Your task to perform on an android device: Go to calendar. Show me events next week Image 0: 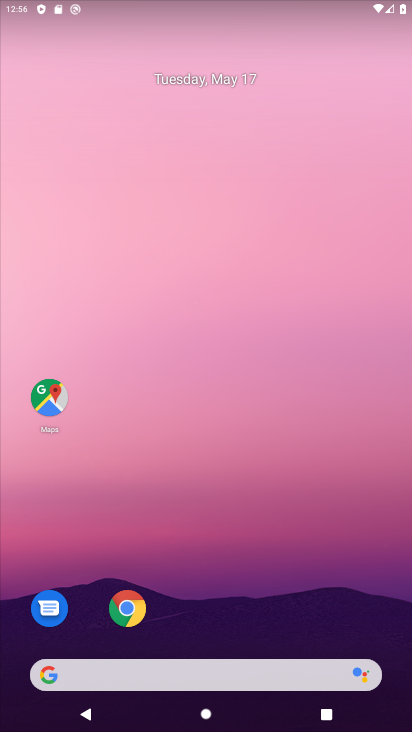
Step 0: click (183, 81)
Your task to perform on an android device: Go to calendar. Show me events next week Image 1: 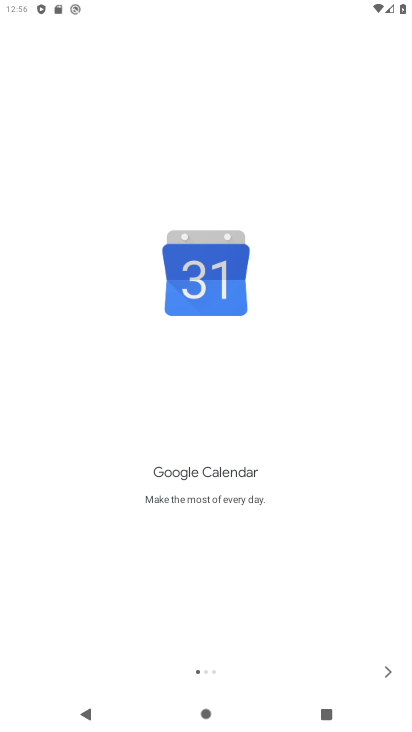
Step 1: click (384, 668)
Your task to perform on an android device: Go to calendar. Show me events next week Image 2: 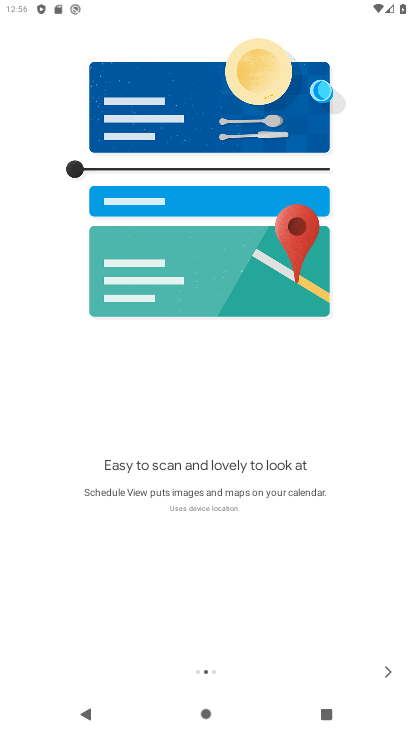
Step 2: click (384, 668)
Your task to perform on an android device: Go to calendar. Show me events next week Image 3: 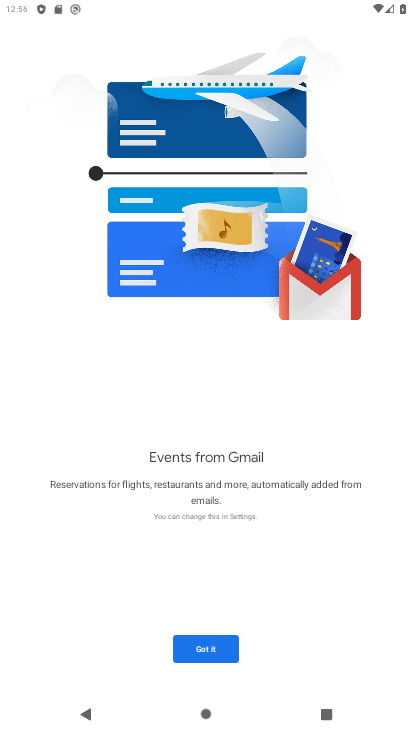
Step 3: click (203, 658)
Your task to perform on an android device: Go to calendar. Show me events next week Image 4: 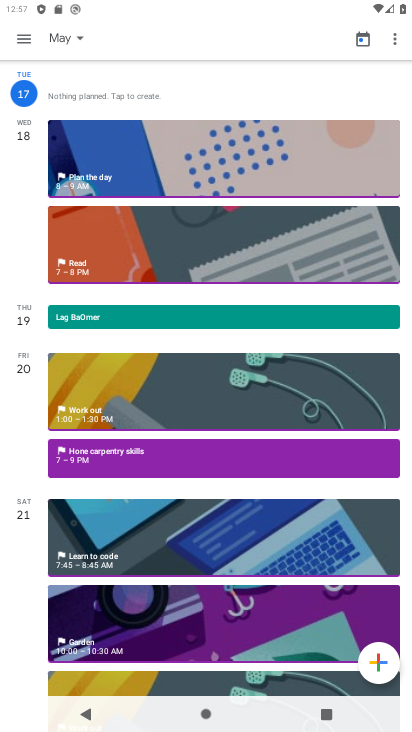
Step 4: press home button
Your task to perform on an android device: Go to calendar. Show me events next week Image 5: 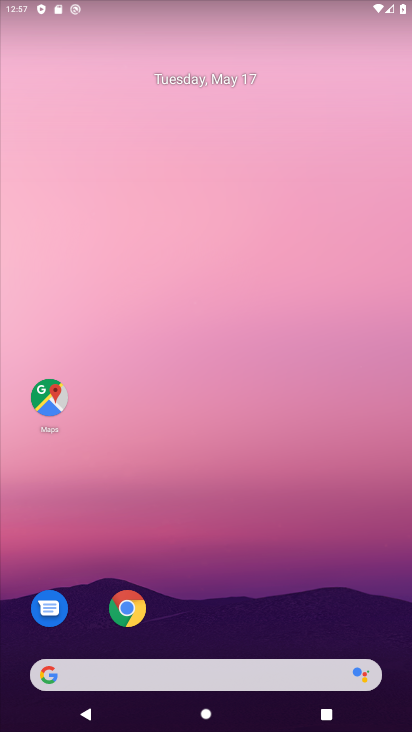
Step 5: click (230, 84)
Your task to perform on an android device: Go to calendar. Show me events next week Image 6: 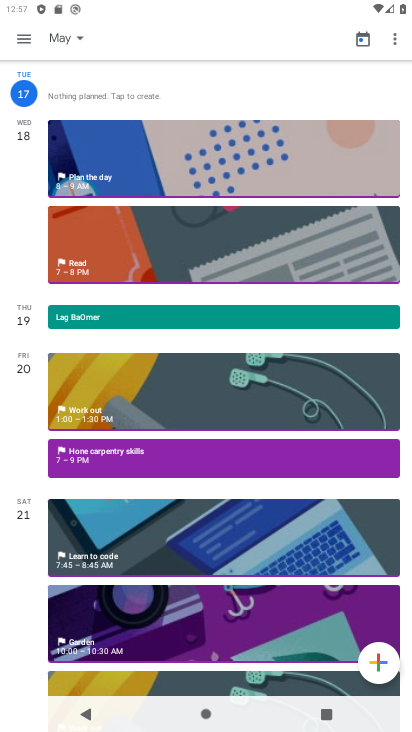
Step 6: click (83, 36)
Your task to perform on an android device: Go to calendar. Show me events next week Image 7: 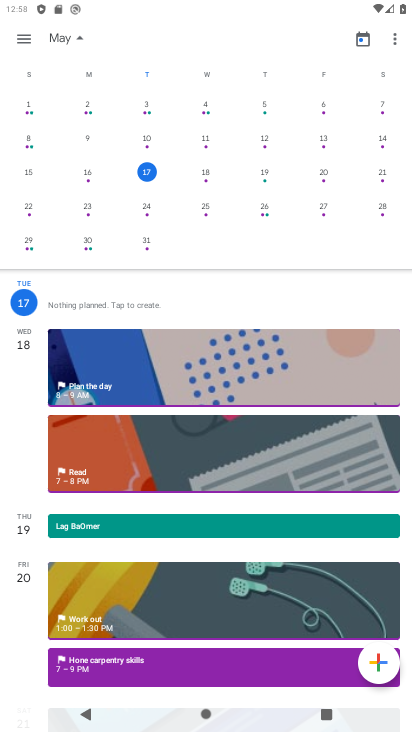
Step 7: click (83, 36)
Your task to perform on an android device: Go to calendar. Show me events next week Image 8: 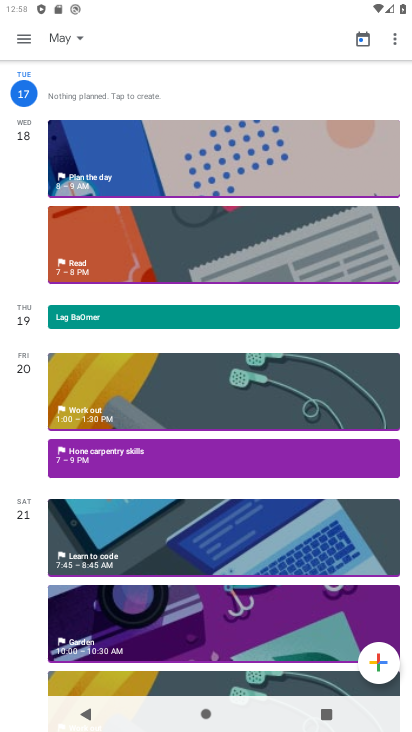
Step 8: click (77, 36)
Your task to perform on an android device: Go to calendar. Show me events next week Image 9: 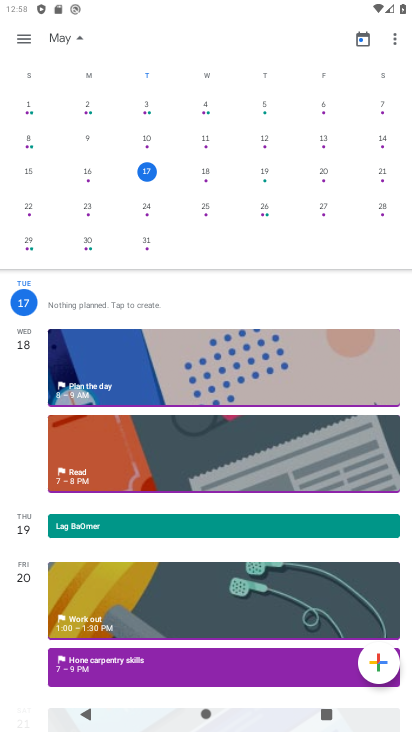
Step 9: drag from (352, 258) to (100, 228)
Your task to perform on an android device: Go to calendar. Show me events next week Image 10: 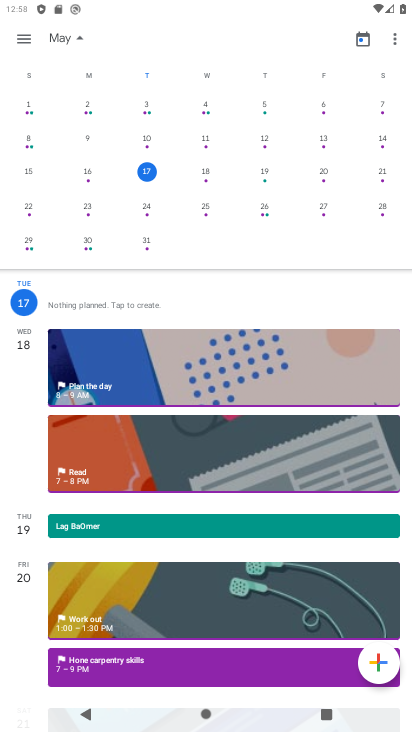
Step 10: click (142, 202)
Your task to perform on an android device: Go to calendar. Show me events next week Image 11: 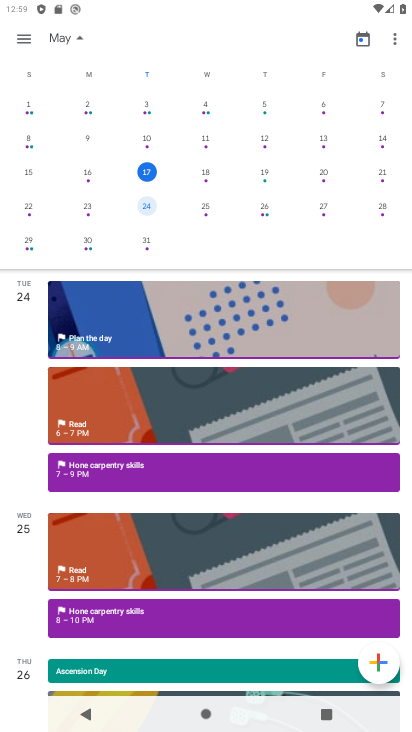
Step 11: task complete